Your task to perform on an android device: remove spam from my inbox in the gmail app Image 0: 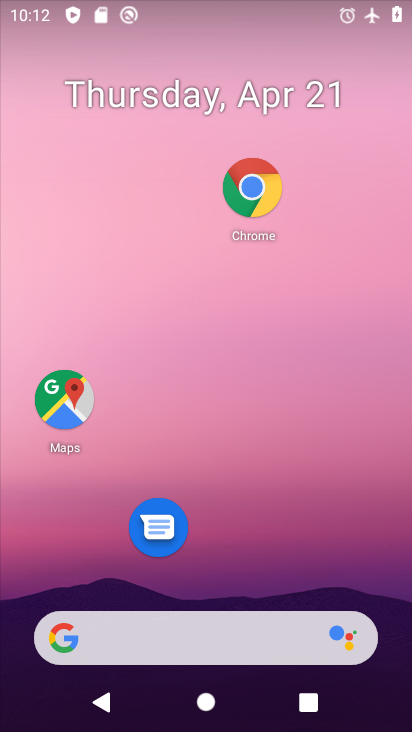
Step 0: drag from (282, 470) to (324, 142)
Your task to perform on an android device: remove spam from my inbox in the gmail app Image 1: 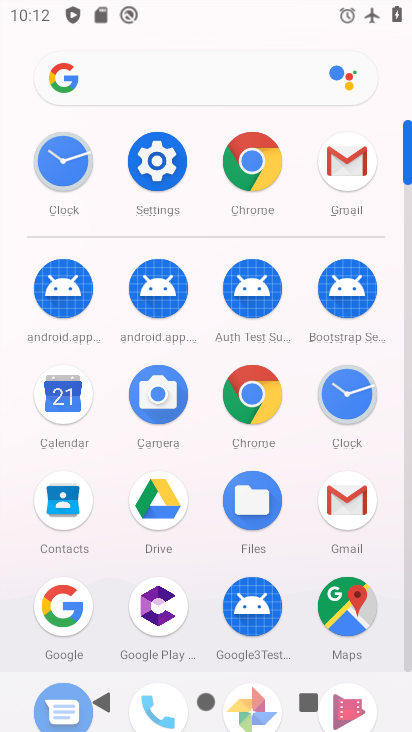
Step 1: click (364, 506)
Your task to perform on an android device: remove spam from my inbox in the gmail app Image 2: 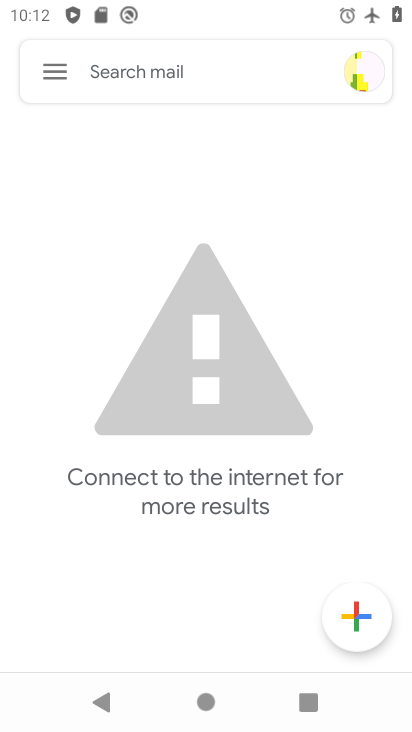
Step 2: click (49, 85)
Your task to perform on an android device: remove spam from my inbox in the gmail app Image 3: 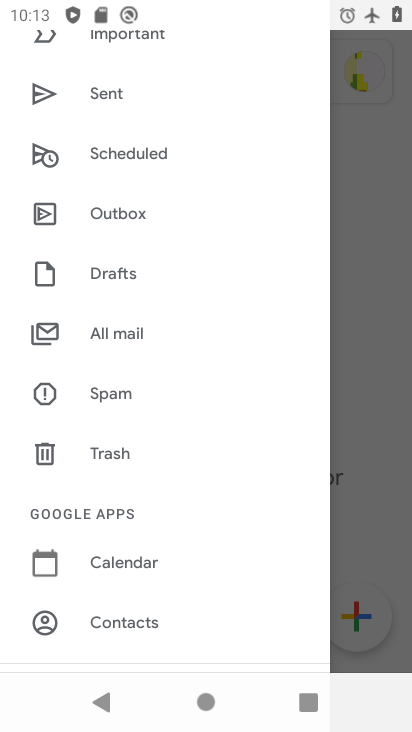
Step 3: drag from (163, 526) to (232, 286)
Your task to perform on an android device: remove spam from my inbox in the gmail app Image 4: 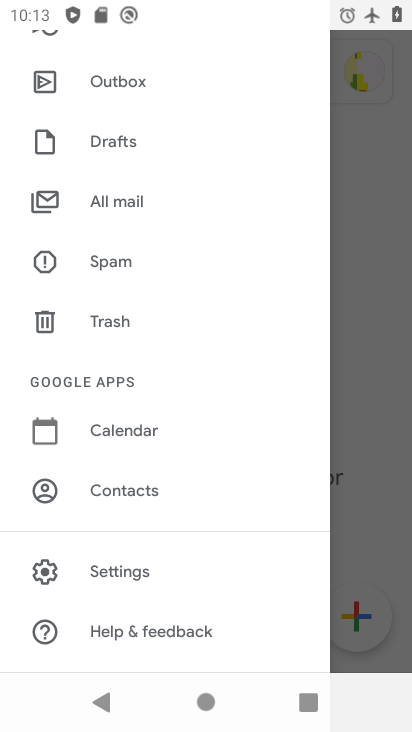
Step 4: drag from (160, 253) to (90, 587)
Your task to perform on an android device: remove spam from my inbox in the gmail app Image 5: 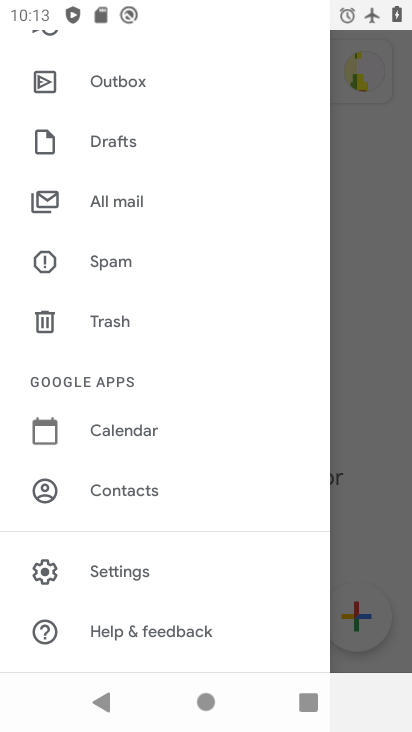
Step 5: drag from (115, 309) to (78, 609)
Your task to perform on an android device: remove spam from my inbox in the gmail app Image 6: 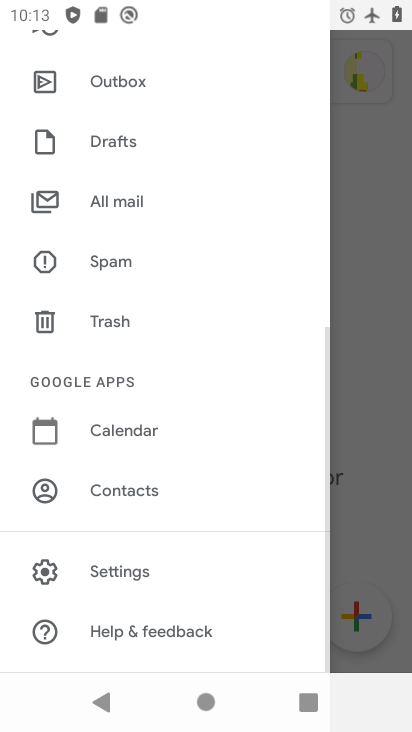
Step 6: drag from (163, 374) to (177, 663)
Your task to perform on an android device: remove spam from my inbox in the gmail app Image 7: 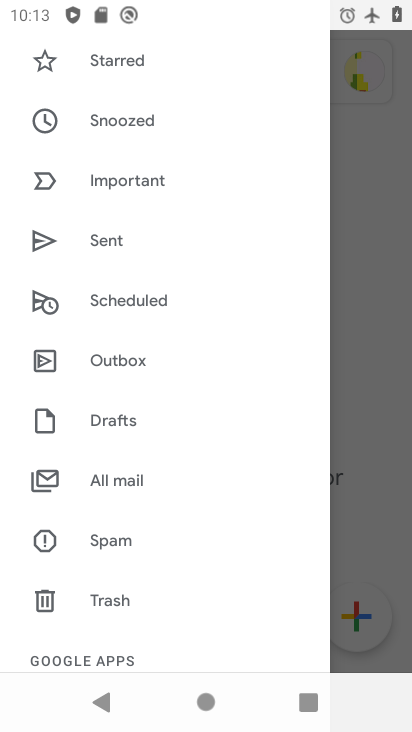
Step 7: drag from (171, 377) to (165, 638)
Your task to perform on an android device: remove spam from my inbox in the gmail app Image 8: 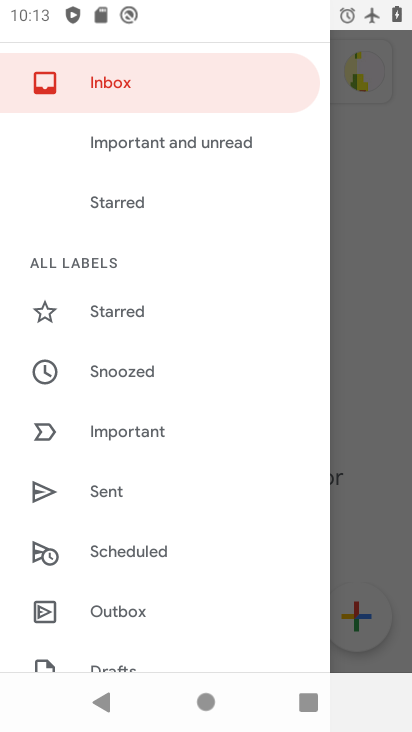
Step 8: drag from (174, 349) to (156, 471)
Your task to perform on an android device: remove spam from my inbox in the gmail app Image 9: 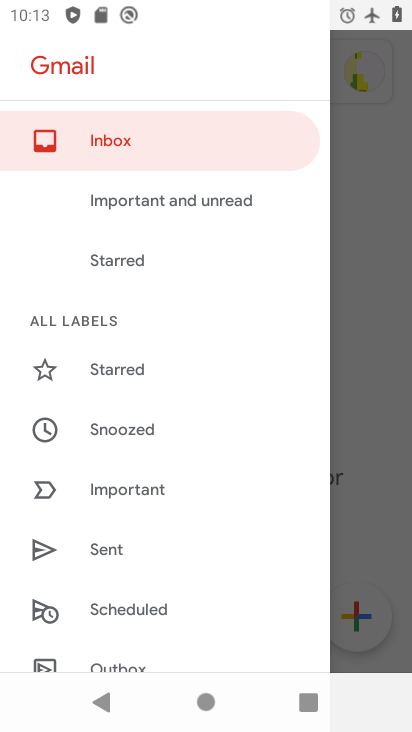
Step 9: click (150, 156)
Your task to perform on an android device: remove spam from my inbox in the gmail app Image 10: 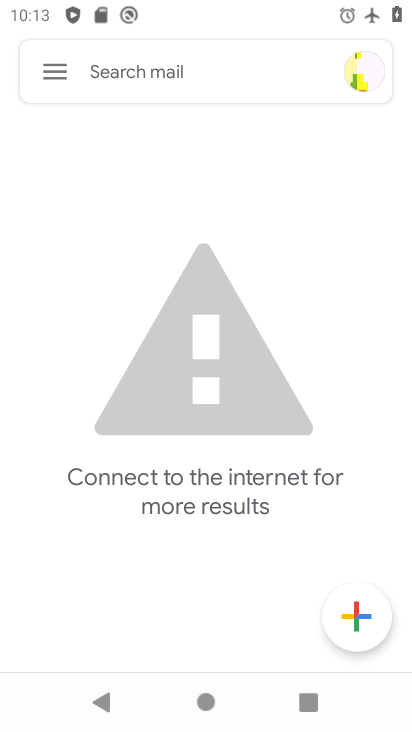
Step 10: task complete